Your task to perform on an android device: visit the assistant section in the google photos Image 0: 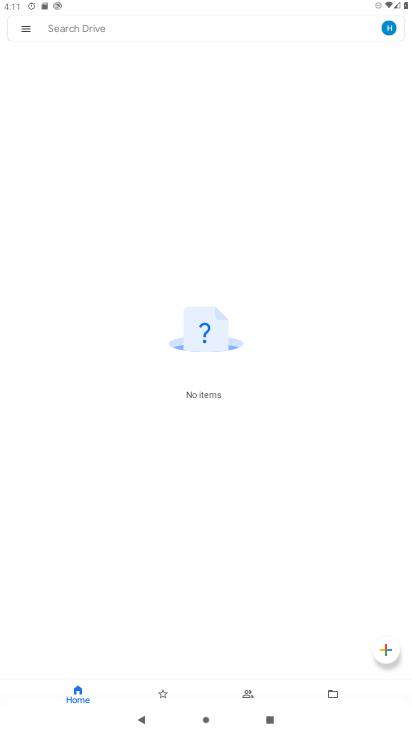
Step 0: drag from (368, 631) to (317, 410)
Your task to perform on an android device: visit the assistant section in the google photos Image 1: 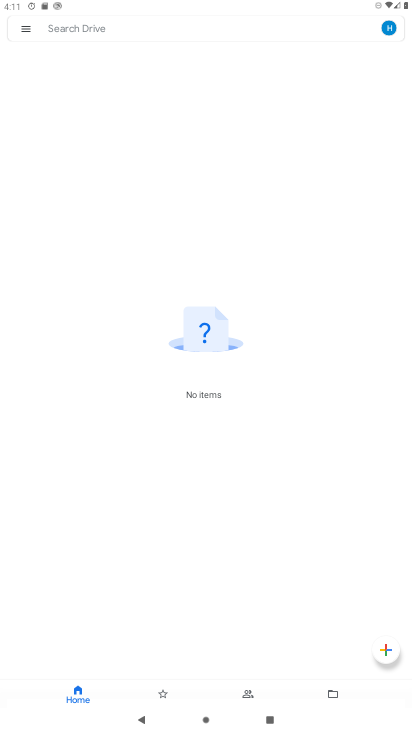
Step 1: press home button
Your task to perform on an android device: visit the assistant section in the google photos Image 2: 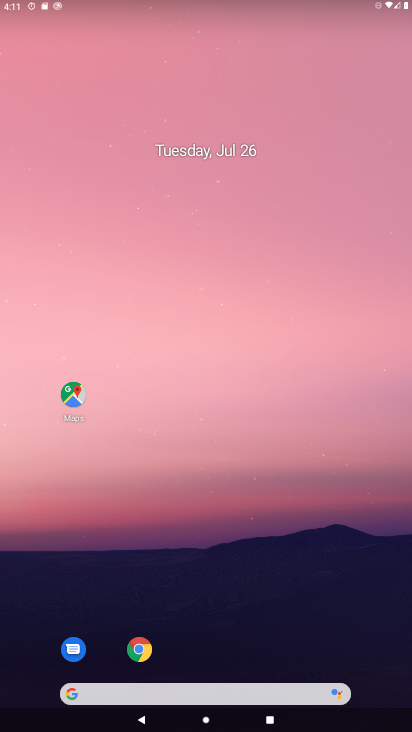
Step 2: drag from (387, 665) to (177, 38)
Your task to perform on an android device: visit the assistant section in the google photos Image 3: 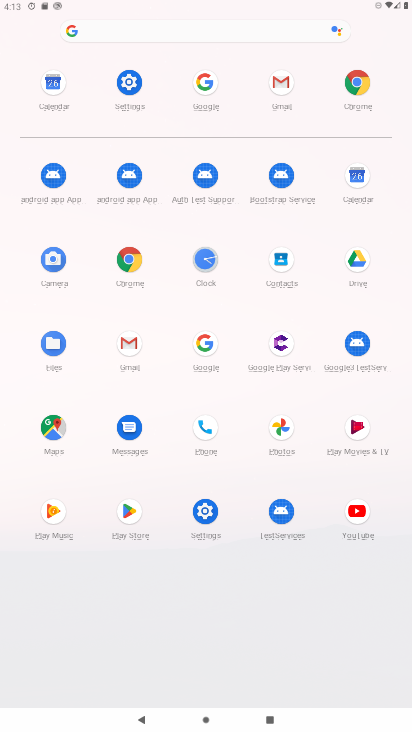
Step 3: click (269, 423)
Your task to perform on an android device: visit the assistant section in the google photos Image 4: 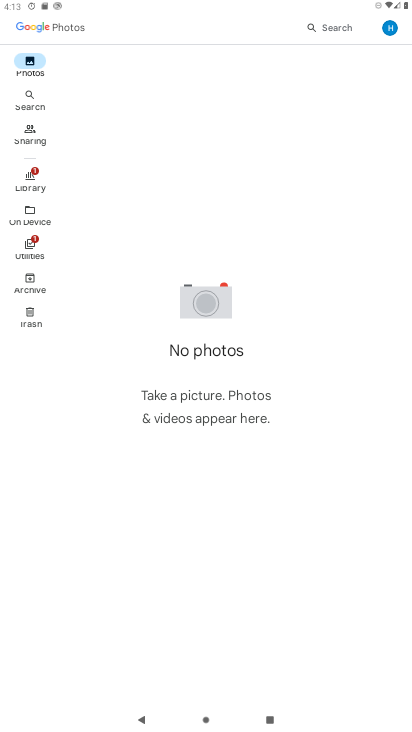
Step 4: task complete